Your task to perform on an android device: turn off priority inbox in the gmail app Image 0: 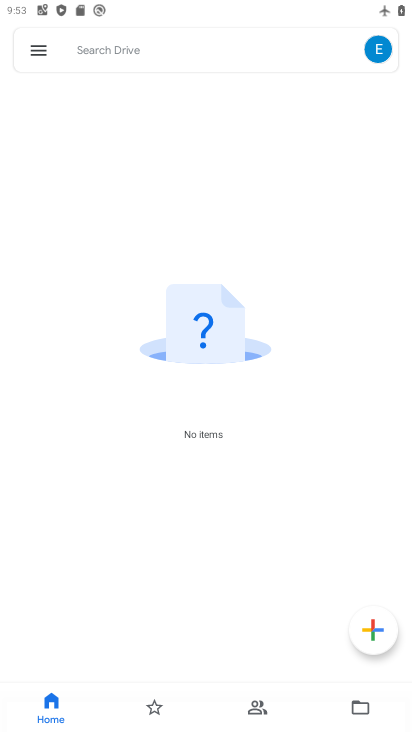
Step 0: press home button
Your task to perform on an android device: turn off priority inbox in the gmail app Image 1: 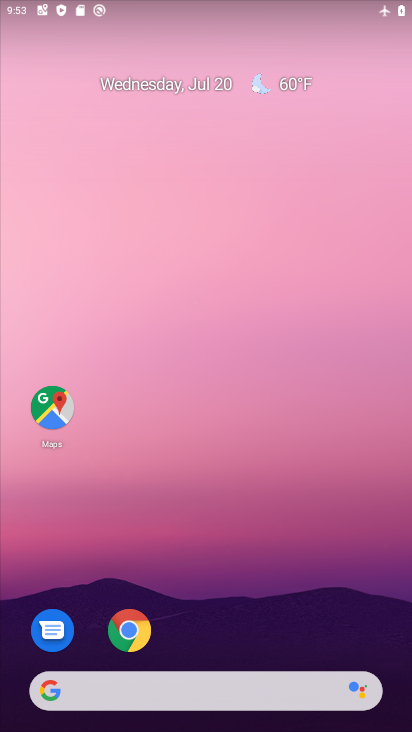
Step 1: drag from (220, 666) to (247, 283)
Your task to perform on an android device: turn off priority inbox in the gmail app Image 2: 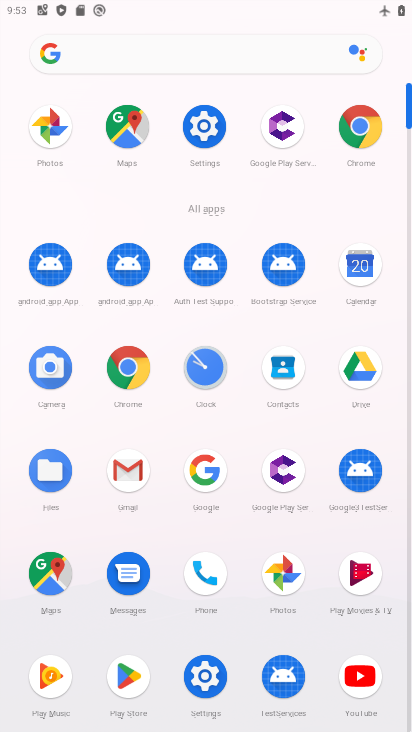
Step 2: click (135, 463)
Your task to perform on an android device: turn off priority inbox in the gmail app Image 3: 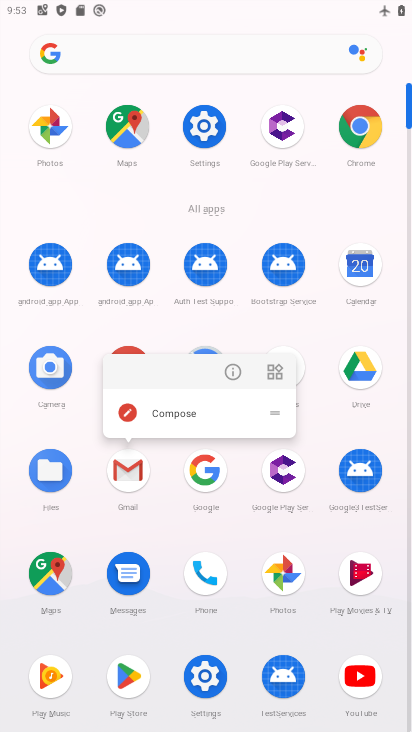
Step 3: click (135, 463)
Your task to perform on an android device: turn off priority inbox in the gmail app Image 4: 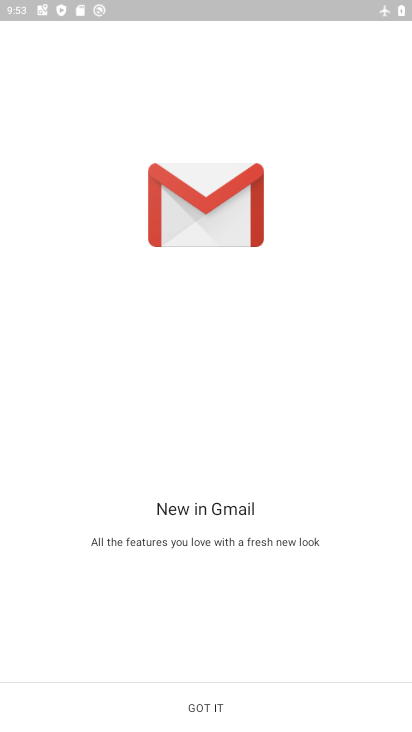
Step 4: click (203, 712)
Your task to perform on an android device: turn off priority inbox in the gmail app Image 5: 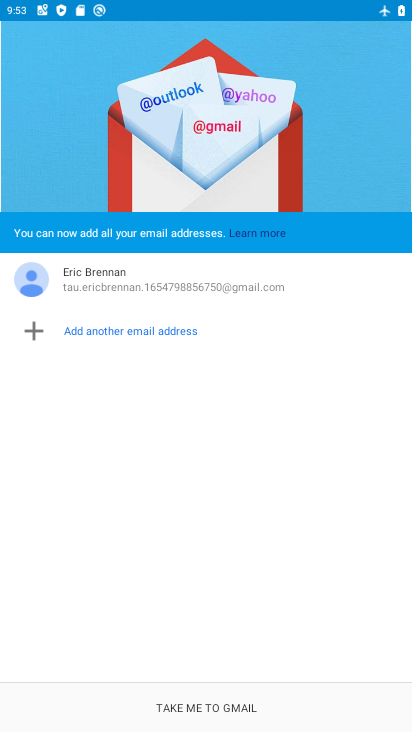
Step 5: click (203, 712)
Your task to perform on an android device: turn off priority inbox in the gmail app Image 6: 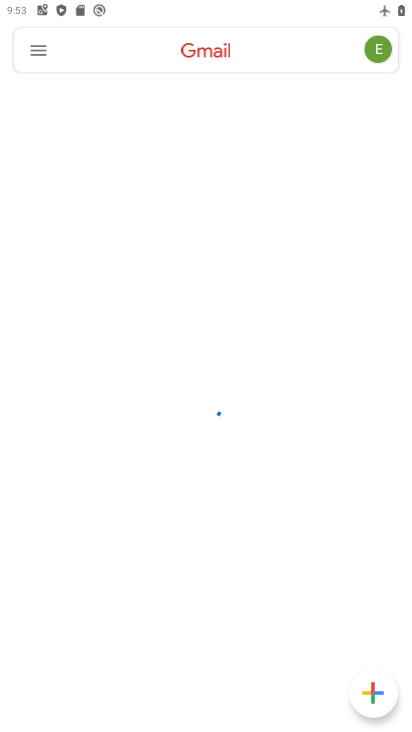
Step 6: click (38, 51)
Your task to perform on an android device: turn off priority inbox in the gmail app Image 7: 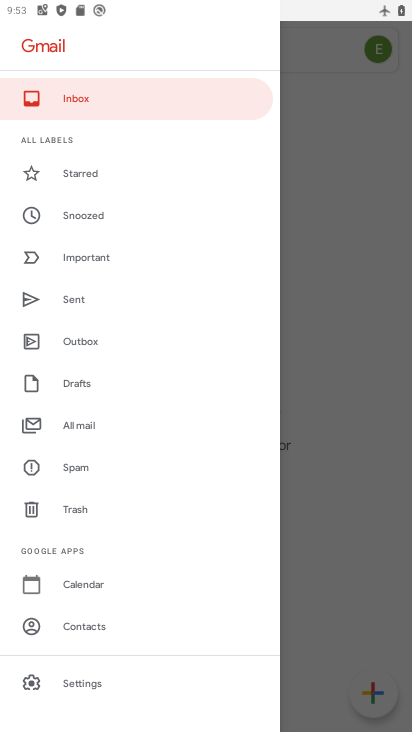
Step 7: click (85, 681)
Your task to perform on an android device: turn off priority inbox in the gmail app Image 8: 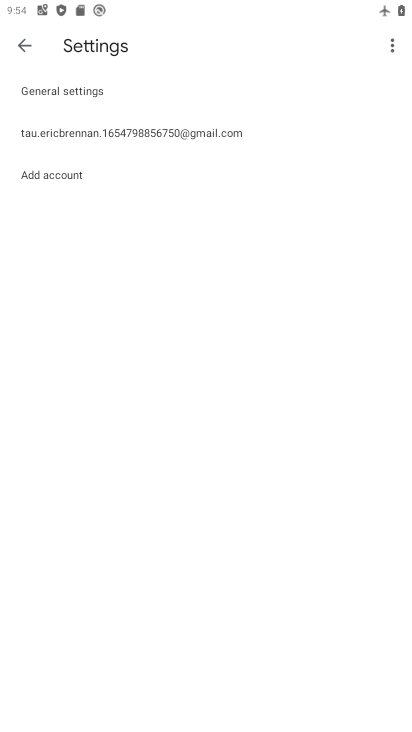
Step 8: click (87, 132)
Your task to perform on an android device: turn off priority inbox in the gmail app Image 9: 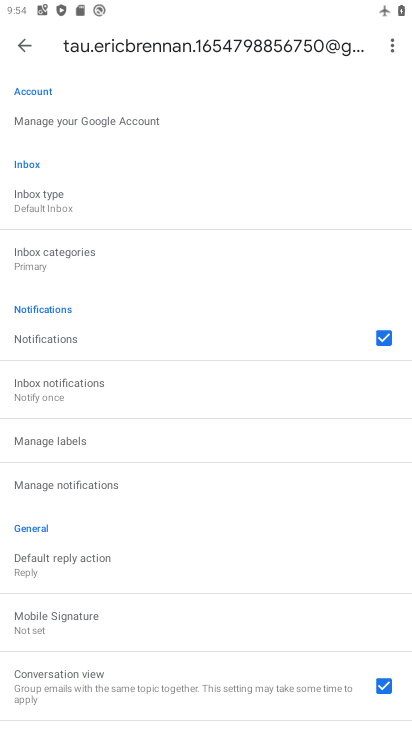
Step 9: click (52, 196)
Your task to perform on an android device: turn off priority inbox in the gmail app Image 10: 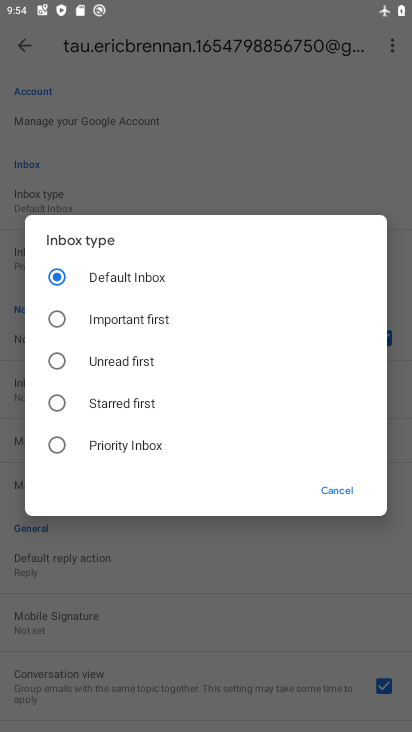
Step 10: click (346, 485)
Your task to perform on an android device: turn off priority inbox in the gmail app Image 11: 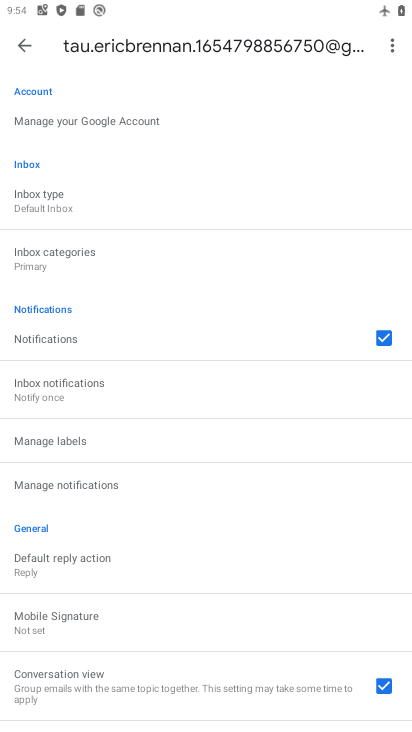
Step 11: task complete